Your task to perform on an android device: Open eBay Image 0: 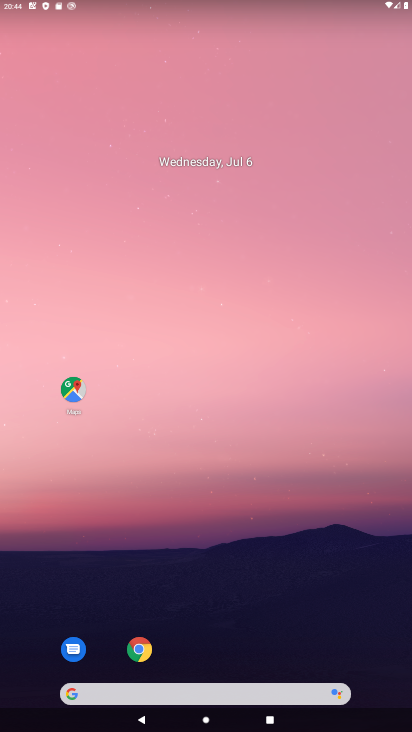
Step 0: drag from (267, 524) to (274, 93)
Your task to perform on an android device: Open eBay Image 1: 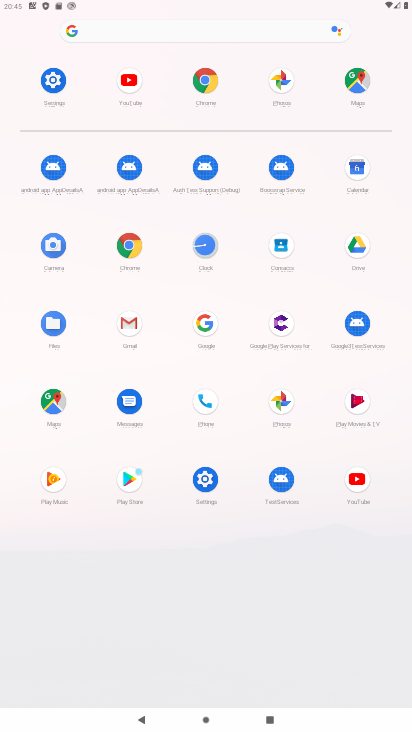
Step 1: click (130, 244)
Your task to perform on an android device: Open eBay Image 2: 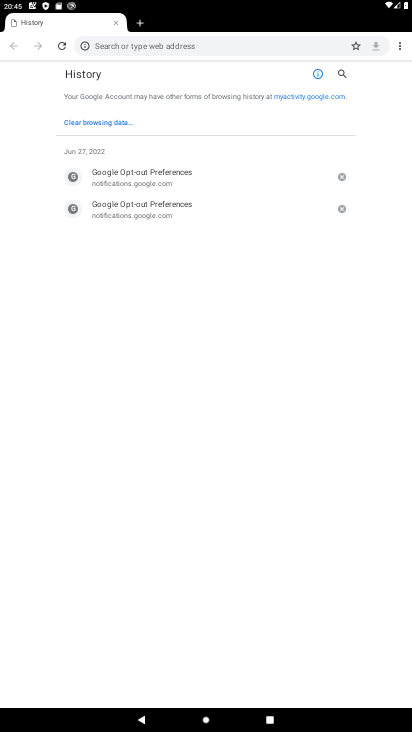
Step 2: click (145, 44)
Your task to perform on an android device: Open eBay Image 3: 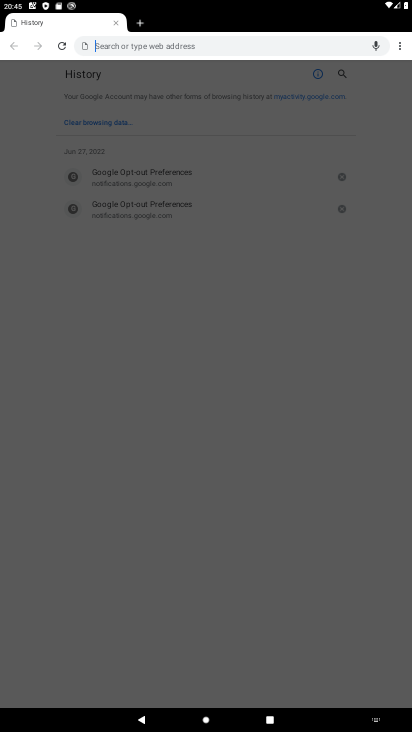
Step 3: type "eBay"
Your task to perform on an android device: Open eBay Image 4: 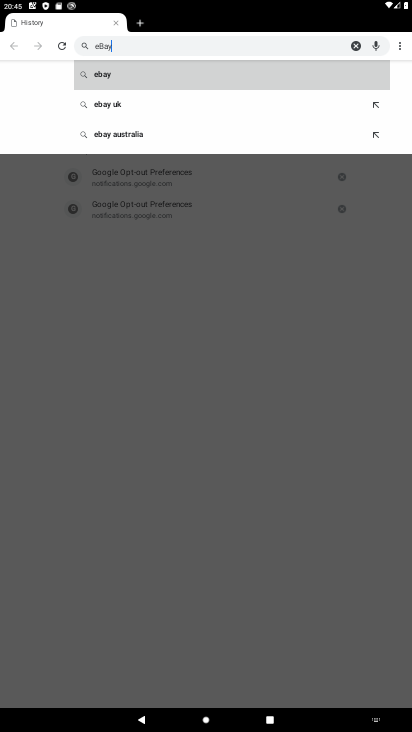
Step 4: click (115, 79)
Your task to perform on an android device: Open eBay Image 5: 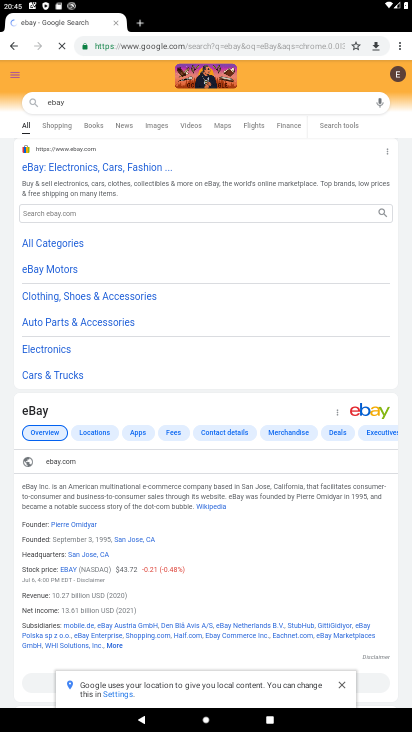
Step 5: task complete